Your task to perform on an android device: Search for a coffee table on Crate & Barrel Image 0: 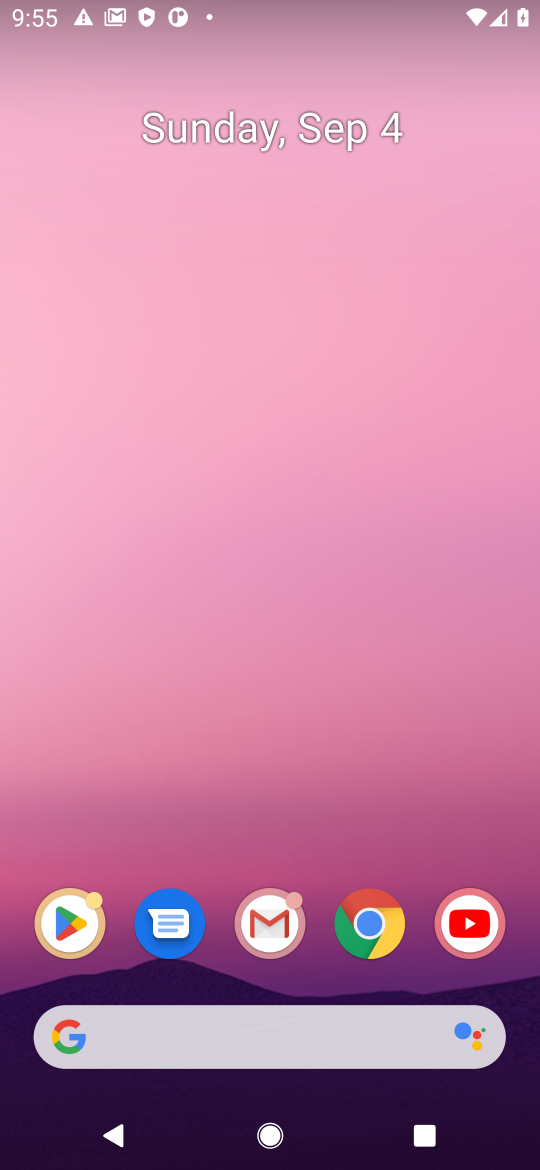
Step 0: press home button
Your task to perform on an android device: Search for a coffee table on Crate & Barrel Image 1: 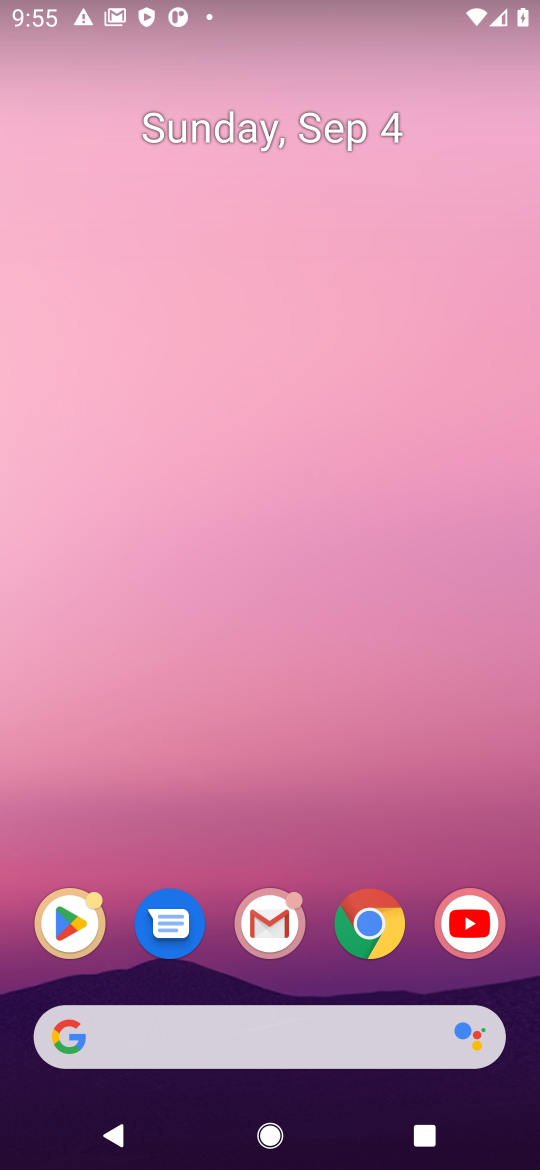
Step 1: click (409, 1030)
Your task to perform on an android device: Search for a coffee table on Crate & Barrel Image 2: 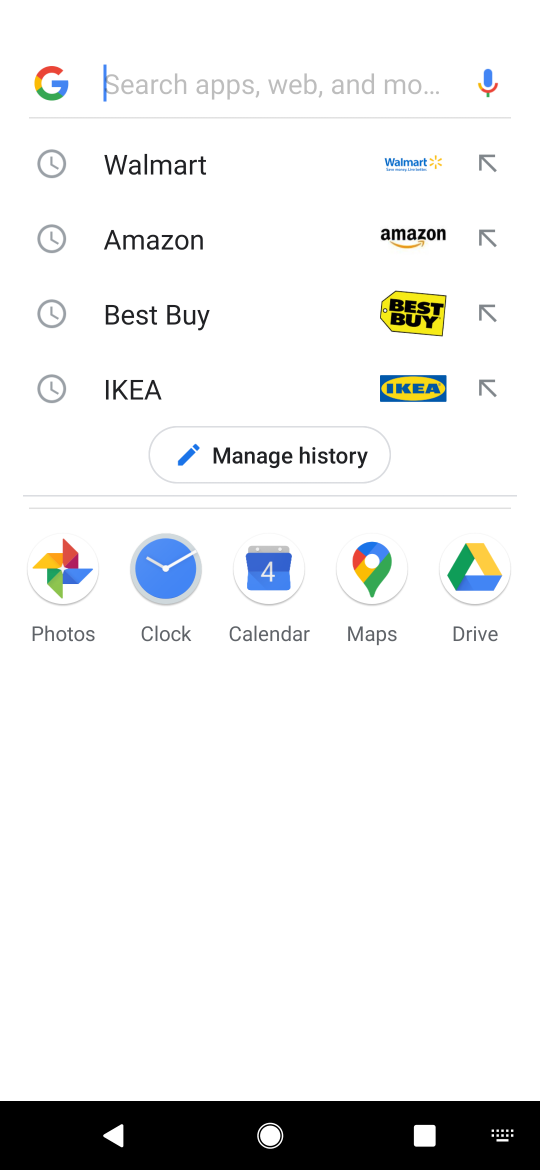
Step 2: press enter
Your task to perform on an android device: Search for a coffee table on Crate & Barrel Image 3: 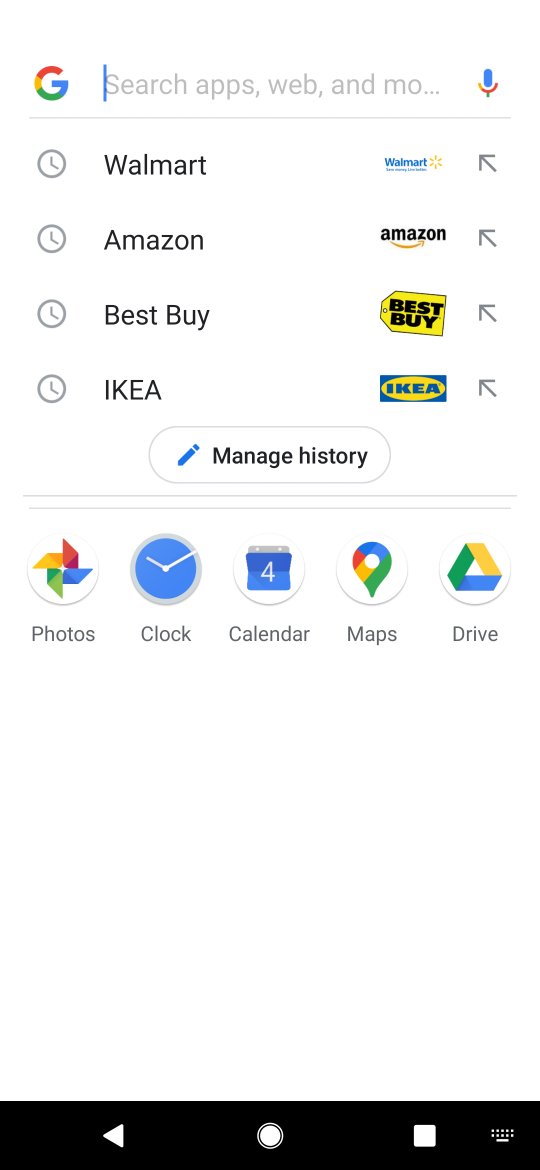
Step 3: type "crate barrel"
Your task to perform on an android device: Search for a coffee table on Crate & Barrel Image 4: 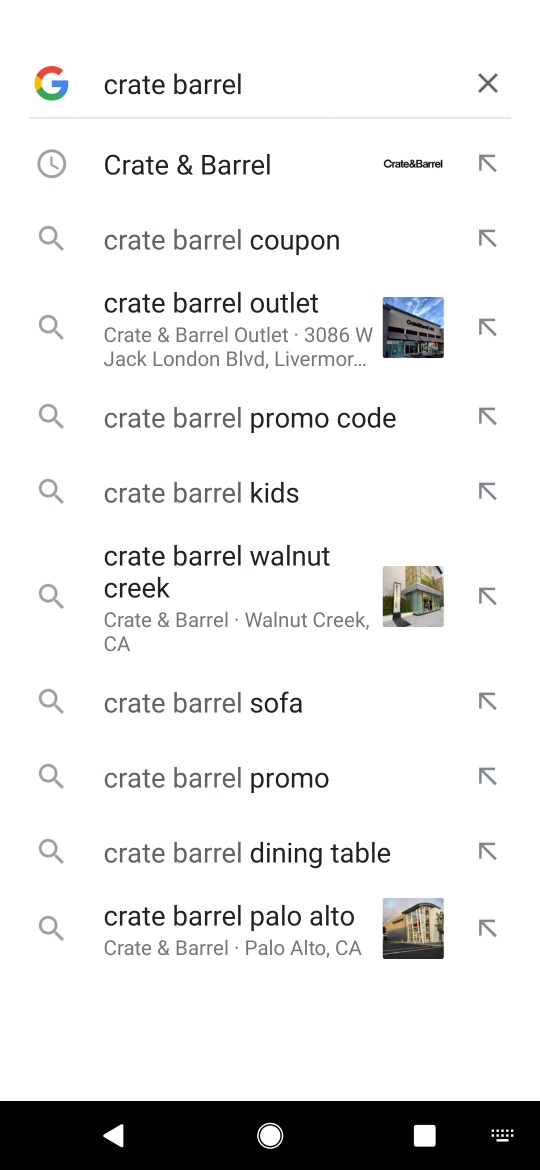
Step 4: click (225, 161)
Your task to perform on an android device: Search for a coffee table on Crate & Barrel Image 5: 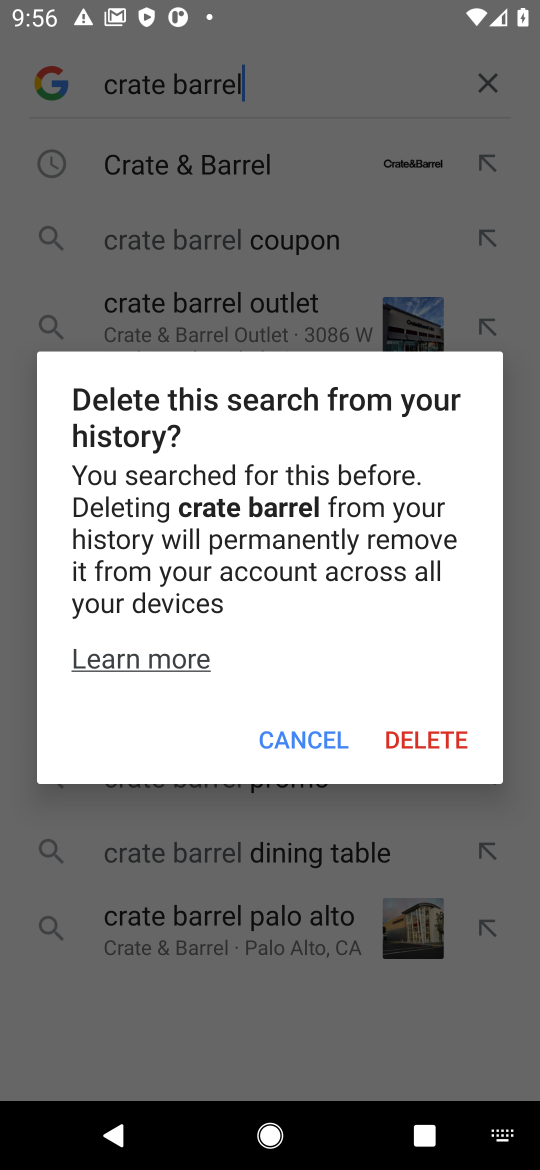
Step 5: click (288, 733)
Your task to perform on an android device: Search for a coffee table on Crate & Barrel Image 6: 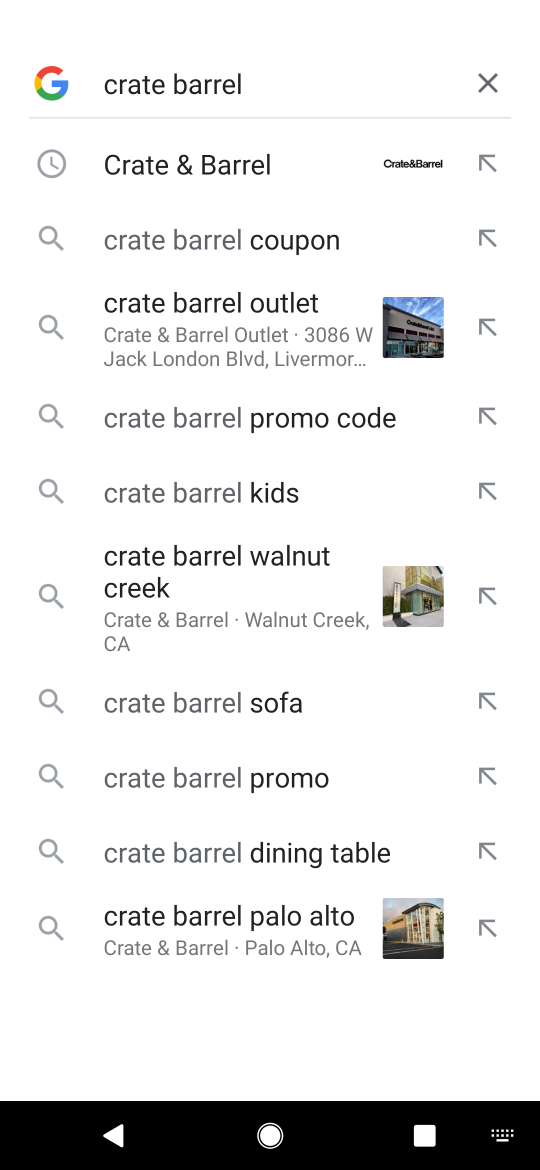
Step 6: click (228, 172)
Your task to perform on an android device: Search for a coffee table on Crate & Barrel Image 7: 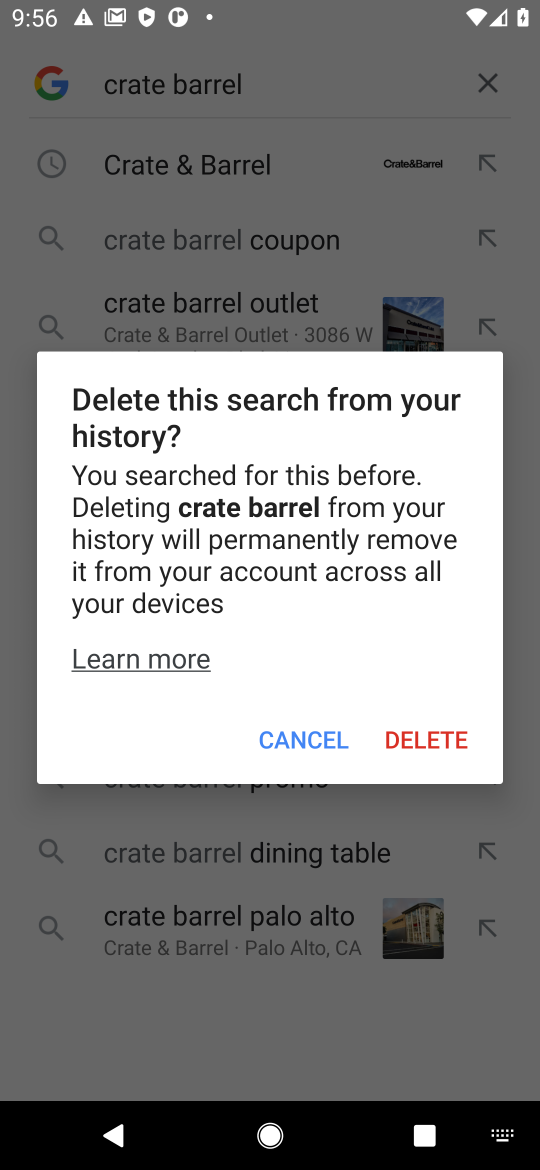
Step 7: click (275, 732)
Your task to perform on an android device: Search for a coffee table on Crate & Barrel Image 8: 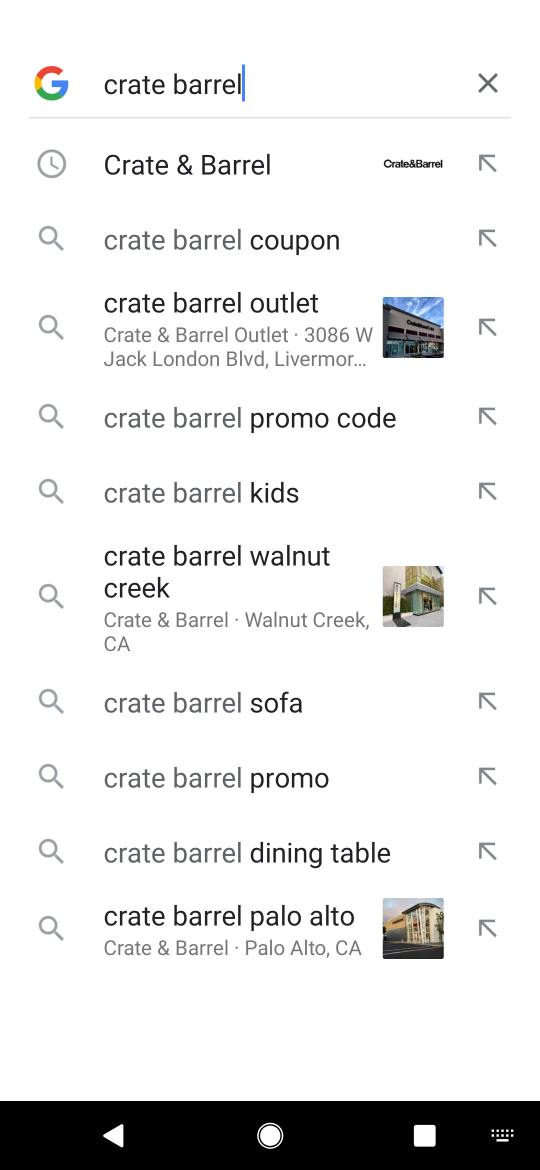
Step 8: click (199, 163)
Your task to perform on an android device: Search for a coffee table on Crate & Barrel Image 9: 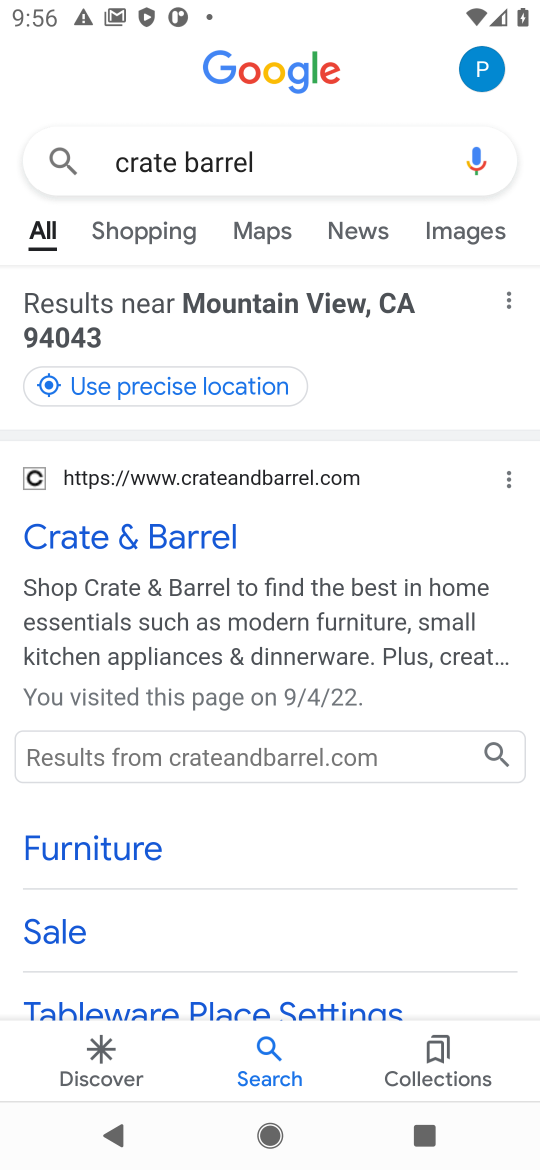
Step 9: click (122, 538)
Your task to perform on an android device: Search for a coffee table on Crate & Barrel Image 10: 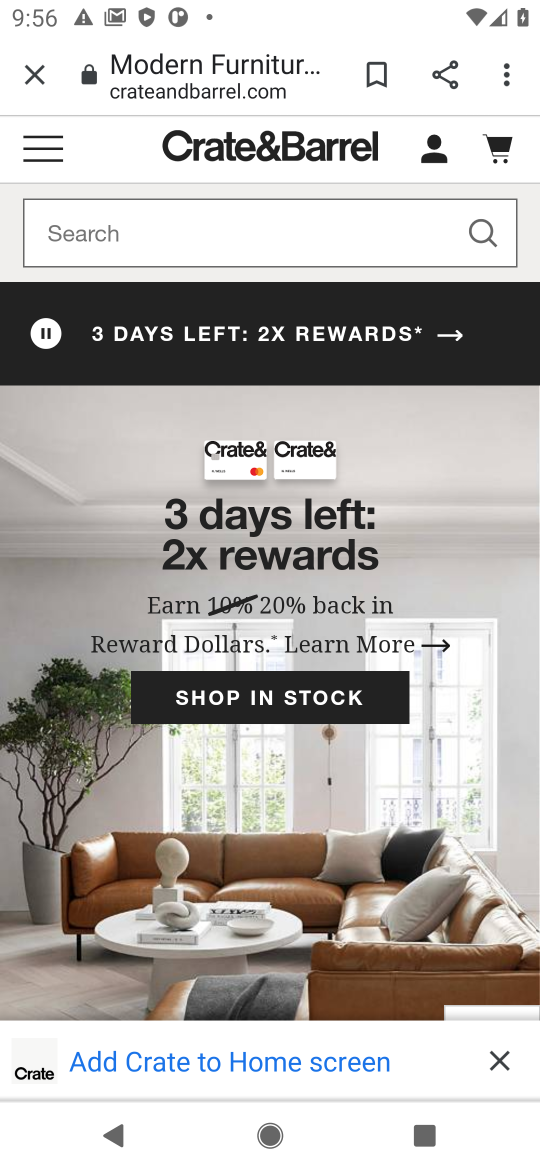
Step 10: click (199, 221)
Your task to perform on an android device: Search for a coffee table on Crate & Barrel Image 11: 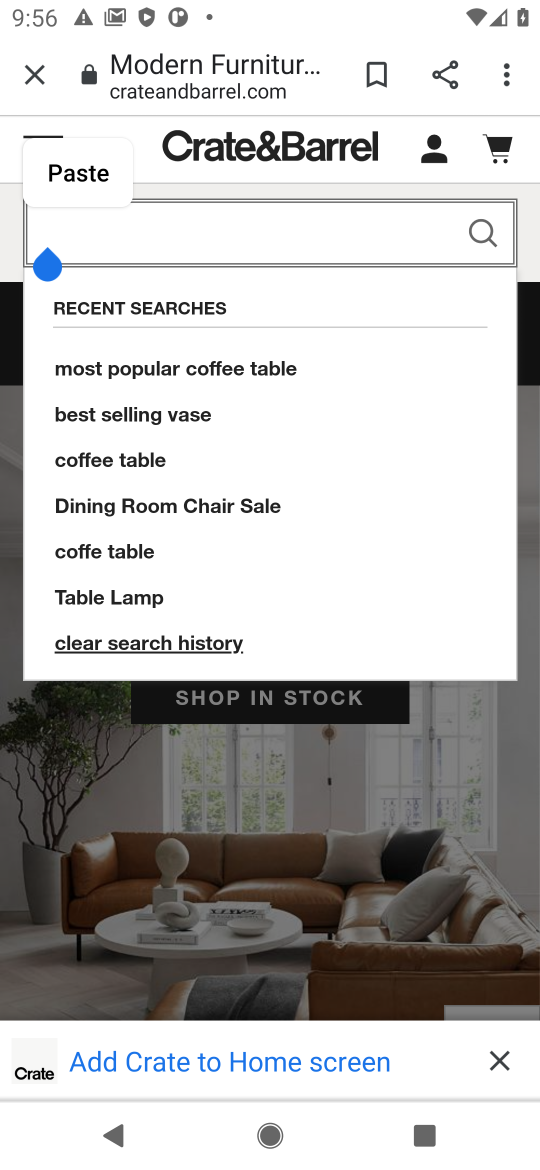
Step 11: click (145, 454)
Your task to perform on an android device: Search for a coffee table on Crate & Barrel Image 12: 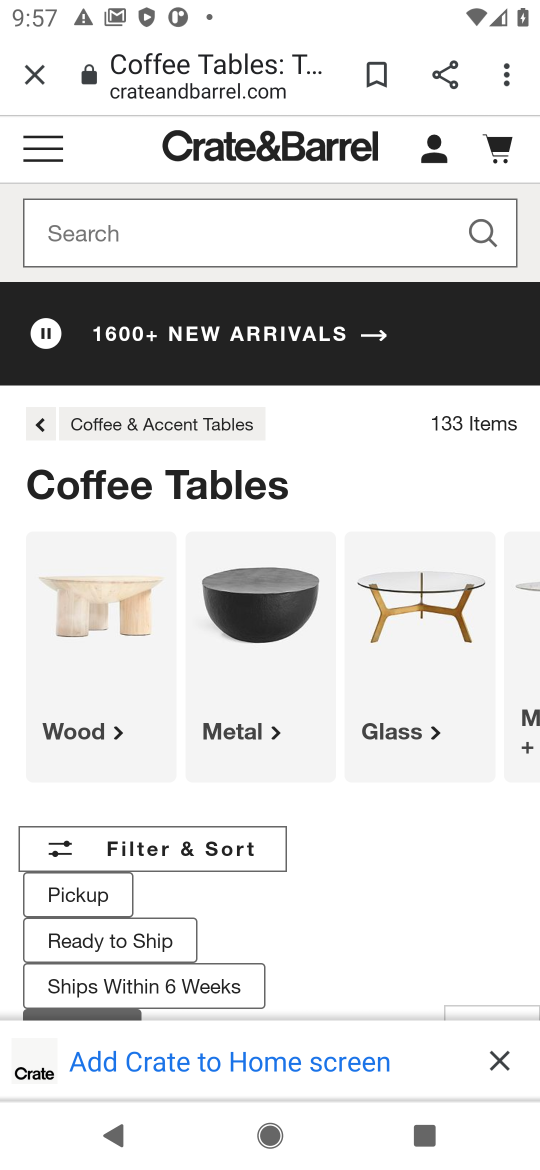
Step 12: task complete